Your task to perform on an android device: Go to location settings Image 0: 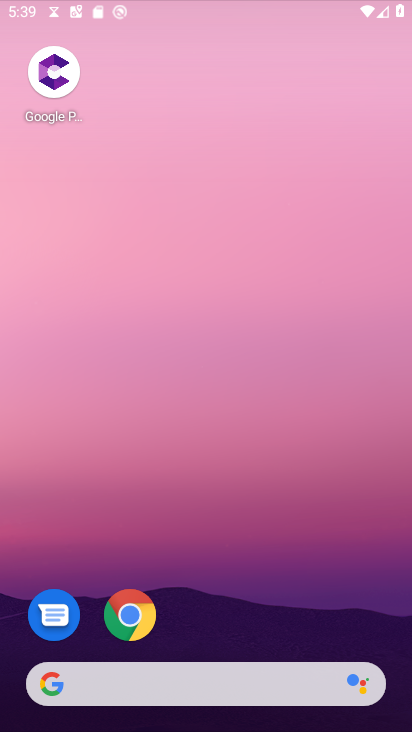
Step 0: drag from (353, 634) to (316, 7)
Your task to perform on an android device: Go to location settings Image 1: 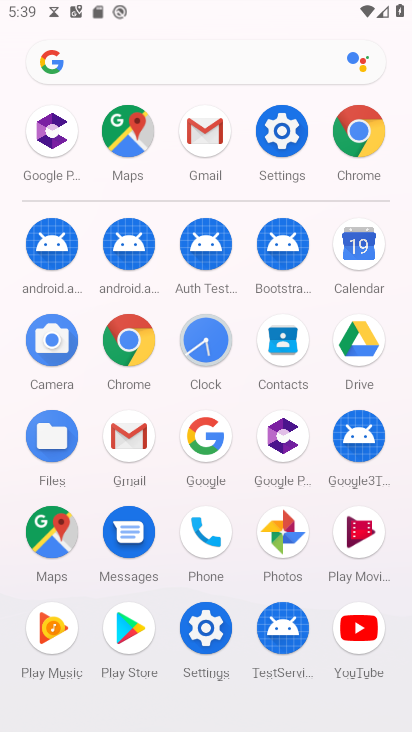
Step 1: click (144, 437)
Your task to perform on an android device: Go to location settings Image 2: 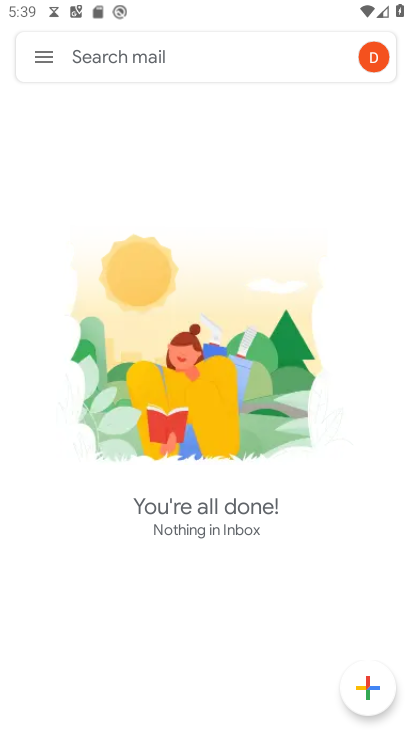
Step 2: press home button
Your task to perform on an android device: Go to location settings Image 3: 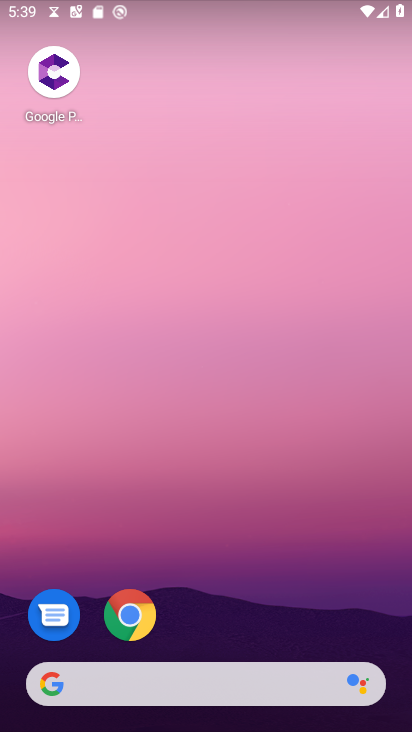
Step 3: drag from (264, 675) to (232, 76)
Your task to perform on an android device: Go to location settings Image 4: 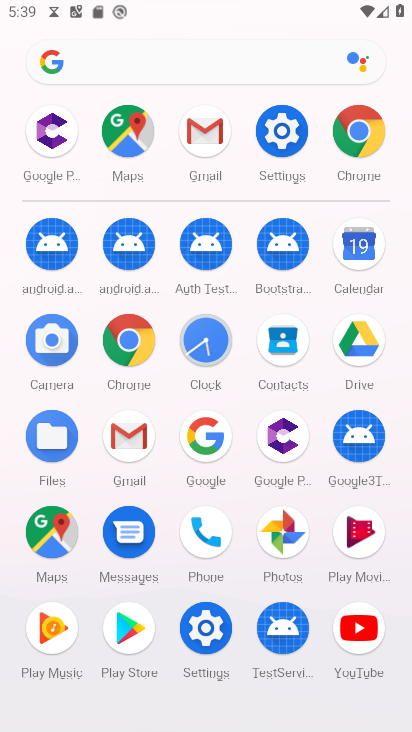
Step 4: click (279, 153)
Your task to perform on an android device: Go to location settings Image 5: 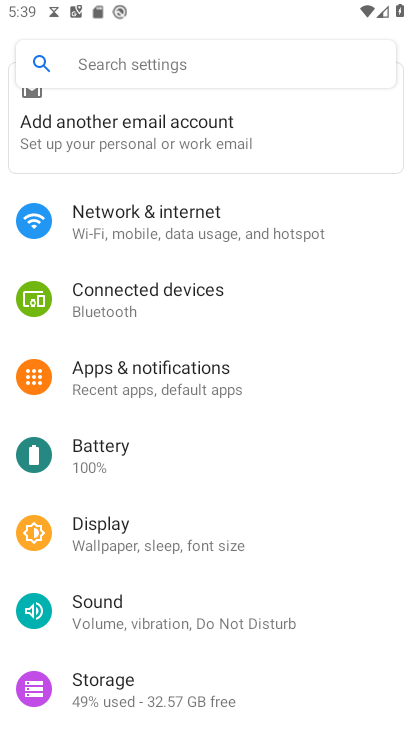
Step 5: drag from (145, 690) to (145, 143)
Your task to perform on an android device: Go to location settings Image 6: 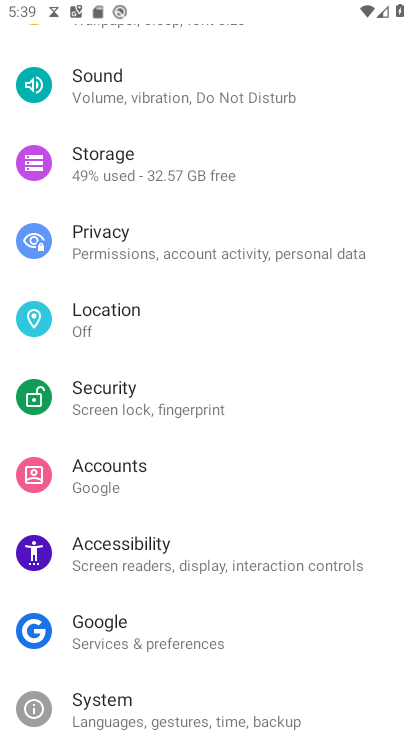
Step 6: click (144, 320)
Your task to perform on an android device: Go to location settings Image 7: 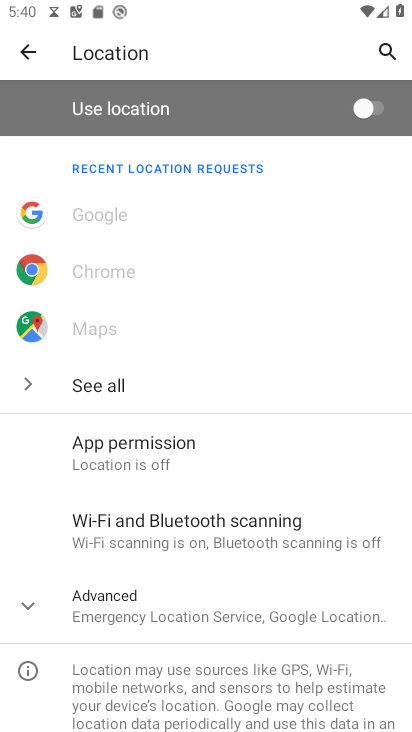
Step 7: task complete